Your task to perform on an android device: Go to notification settings Image 0: 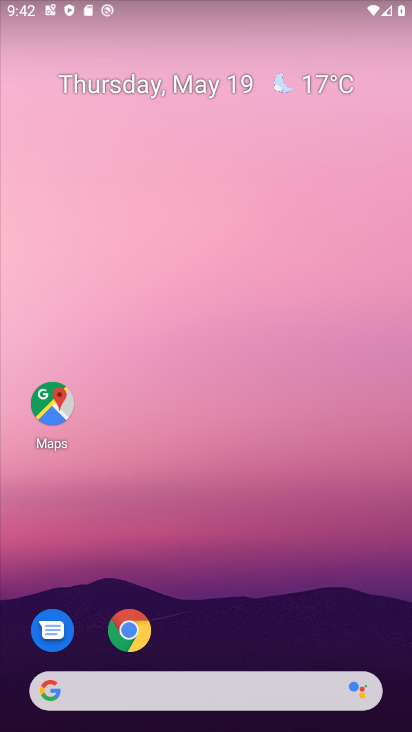
Step 0: drag from (292, 538) to (221, 101)
Your task to perform on an android device: Go to notification settings Image 1: 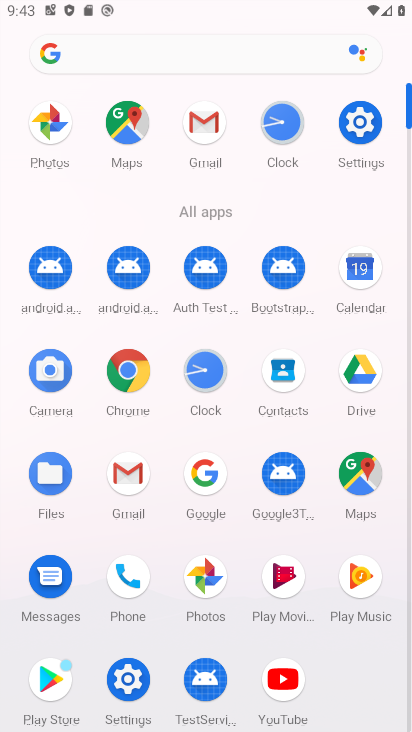
Step 1: click (359, 129)
Your task to perform on an android device: Go to notification settings Image 2: 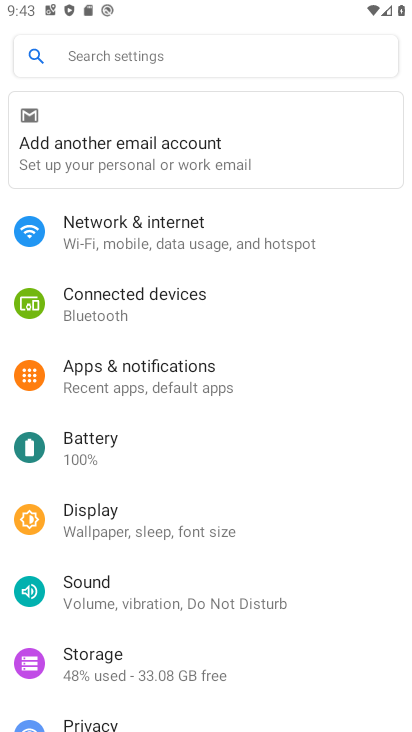
Step 2: click (115, 368)
Your task to perform on an android device: Go to notification settings Image 3: 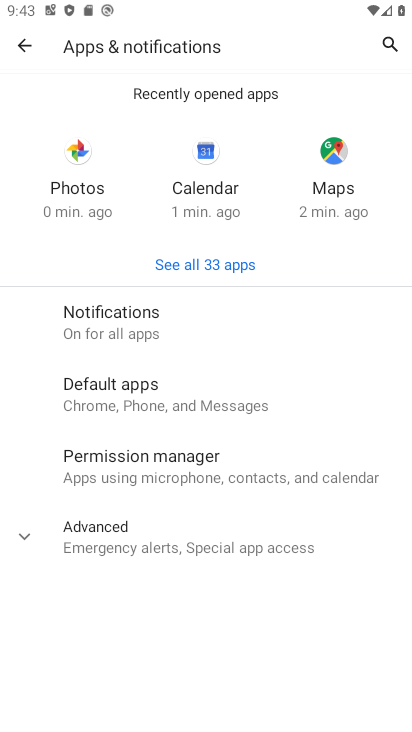
Step 3: task complete